Your task to perform on an android device: delete browsing data in the chrome app Image 0: 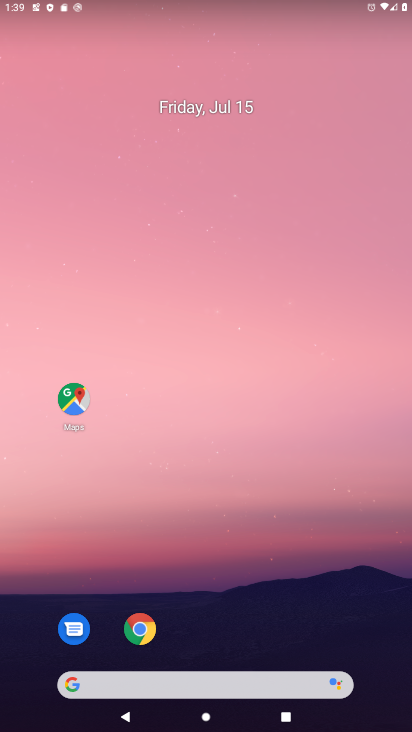
Step 0: drag from (284, 614) to (236, 110)
Your task to perform on an android device: delete browsing data in the chrome app Image 1: 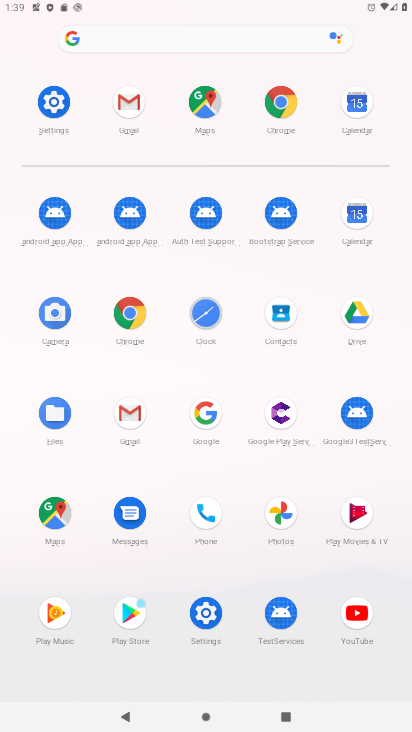
Step 1: click (281, 99)
Your task to perform on an android device: delete browsing data in the chrome app Image 2: 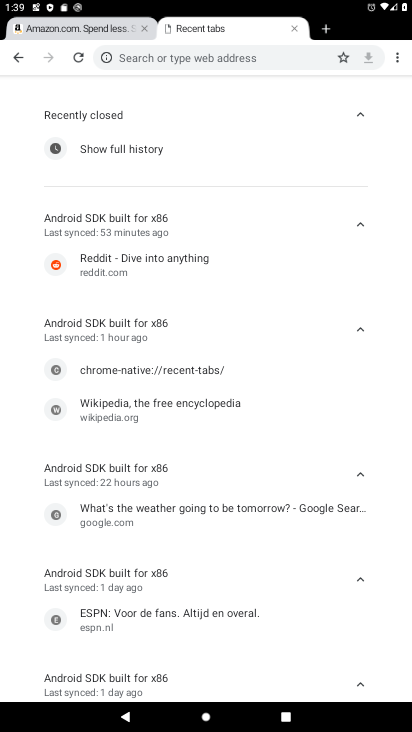
Step 2: drag from (402, 54) to (281, 213)
Your task to perform on an android device: delete browsing data in the chrome app Image 3: 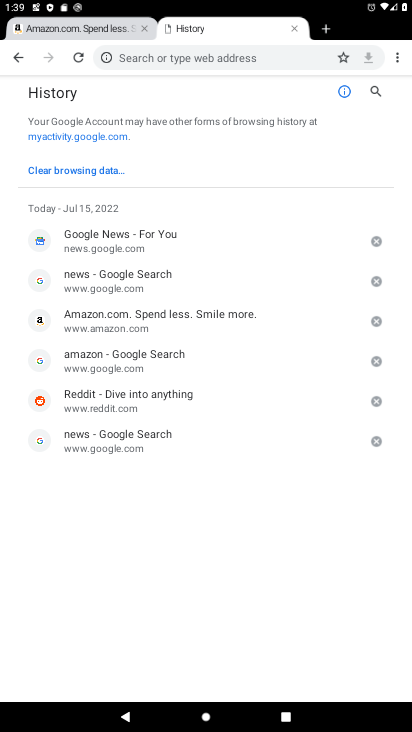
Step 3: click (111, 173)
Your task to perform on an android device: delete browsing data in the chrome app Image 4: 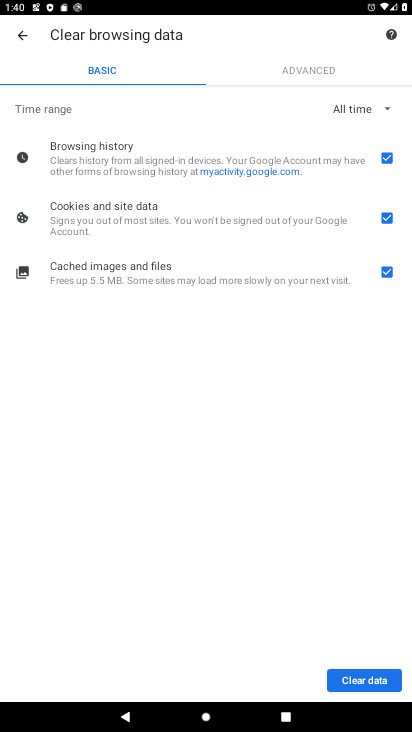
Step 4: click (359, 687)
Your task to perform on an android device: delete browsing data in the chrome app Image 5: 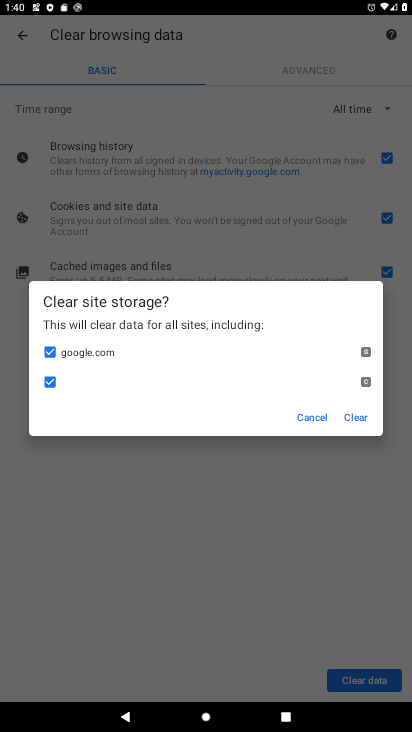
Step 5: click (361, 417)
Your task to perform on an android device: delete browsing data in the chrome app Image 6: 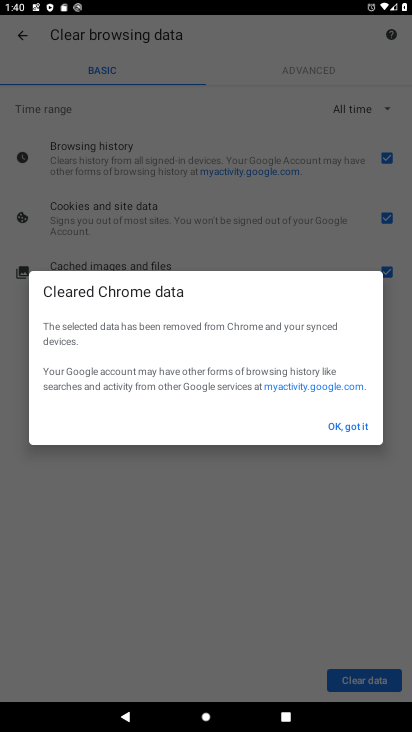
Step 6: task complete